Your task to perform on an android device: turn pop-ups on in chrome Image 0: 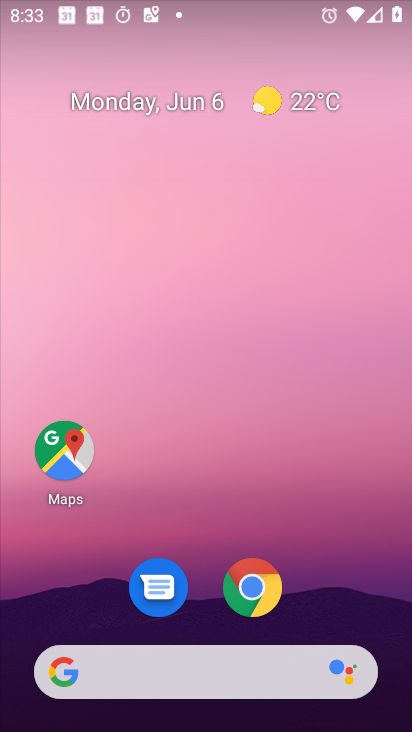
Step 0: click (252, 587)
Your task to perform on an android device: turn pop-ups on in chrome Image 1: 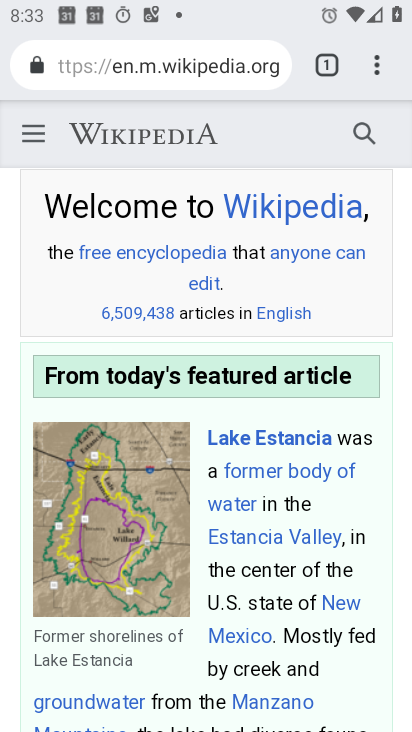
Step 1: click (376, 71)
Your task to perform on an android device: turn pop-ups on in chrome Image 2: 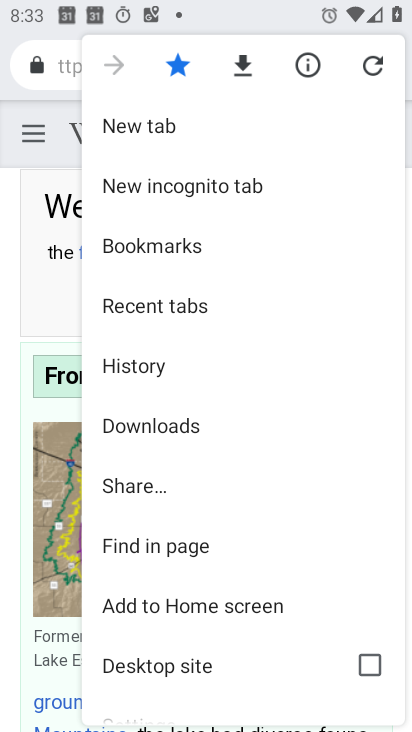
Step 2: drag from (161, 677) to (161, 253)
Your task to perform on an android device: turn pop-ups on in chrome Image 3: 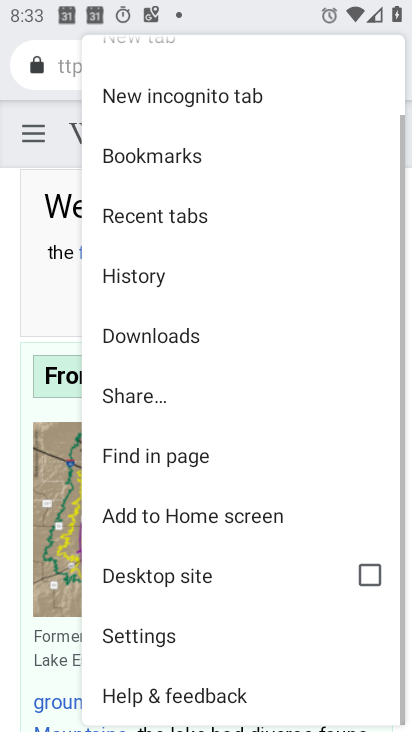
Step 3: click (160, 634)
Your task to perform on an android device: turn pop-ups on in chrome Image 4: 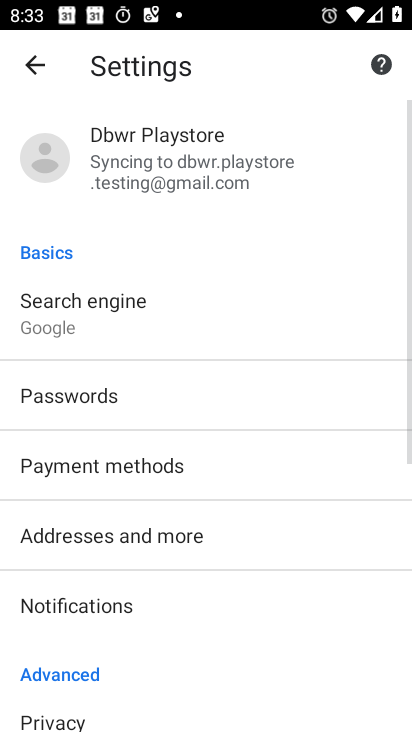
Step 4: drag from (103, 681) to (100, 343)
Your task to perform on an android device: turn pop-ups on in chrome Image 5: 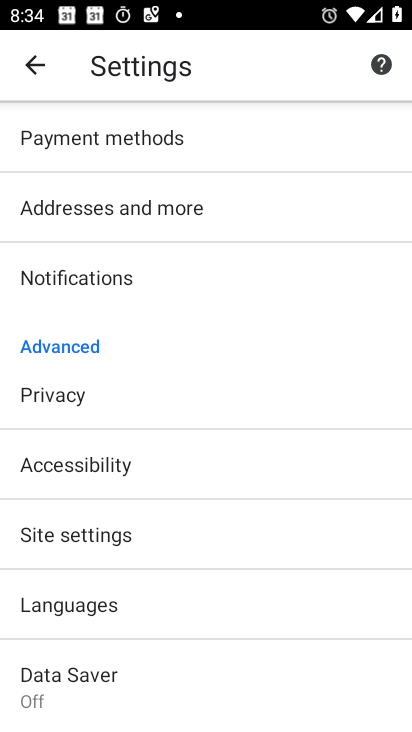
Step 5: drag from (78, 686) to (104, 338)
Your task to perform on an android device: turn pop-ups on in chrome Image 6: 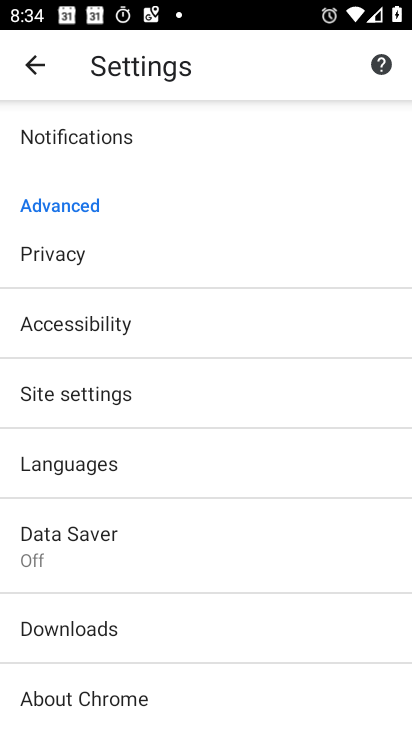
Step 6: click (84, 393)
Your task to perform on an android device: turn pop-ups on in chrome Image 7: 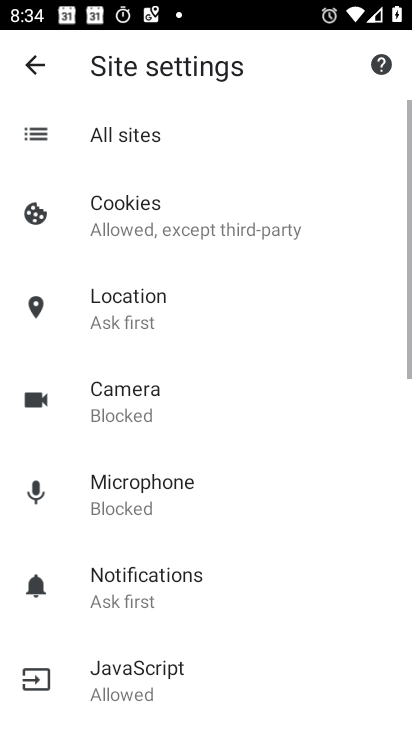
Step 7: drag from (102, 679) to (142, 332)
Your task to perform on an android device: turn pop-ups on in chrome Image 8: 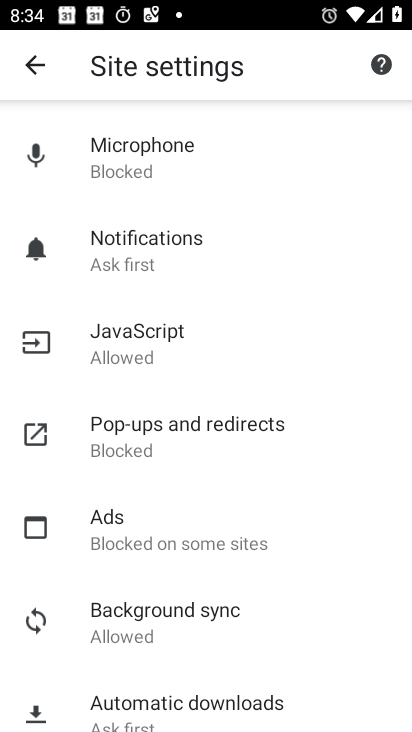
Step 8: click (159, 446)
Your task to perform on an android device: turn pop-ups on in chrome Image 9: 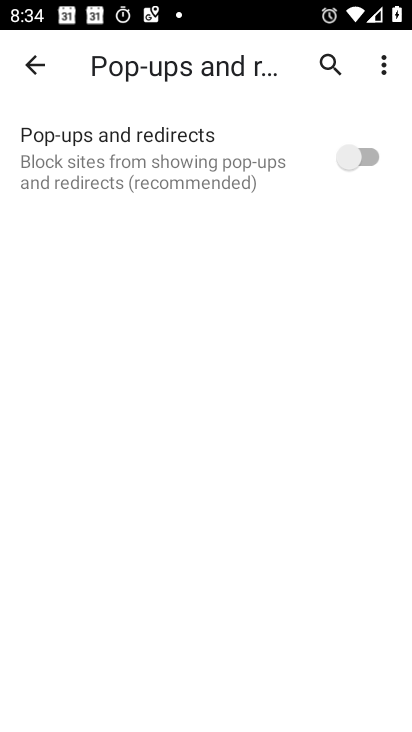
Step 9: click (365, 155)
Your task to perform on an android device: turn pop-ups on in chrome Image 10: 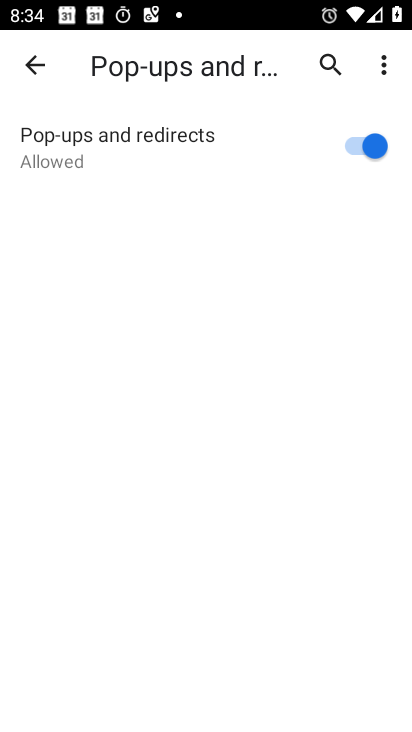
Step 10: task complete